Your task to perform on an android device: refresh tabs in the chrome app Image 0: 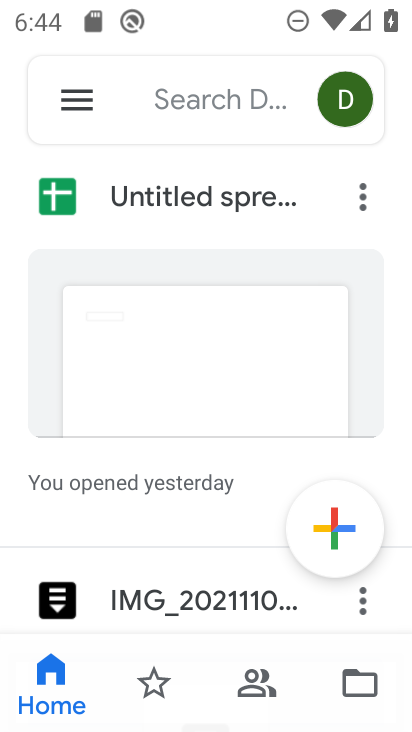
Step 0: press home button
Your task to perform on an android device: refresh tabs in the chrome app Image 1: 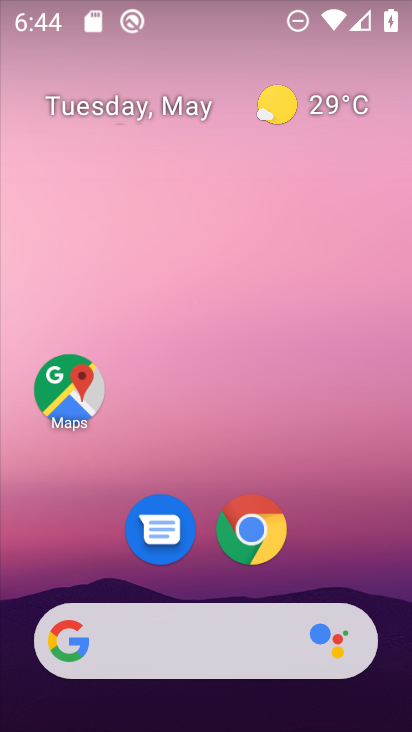
Step 1: drag from (378, 594) to (325, 19)
Your task to perform on an android device: refresh tabs in the chrome app Image 2: 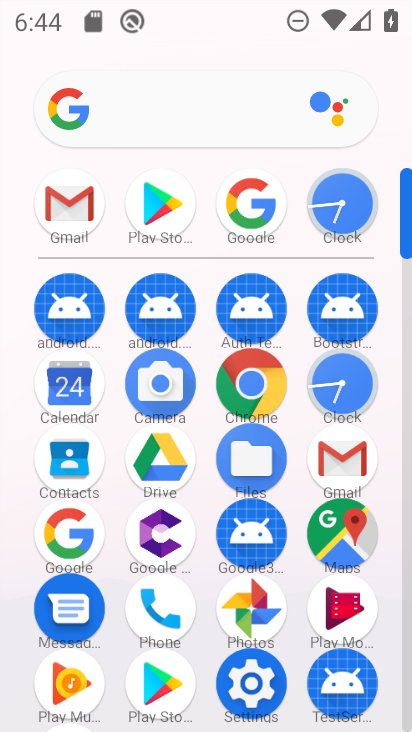
Step 2: click (248, 388)
Your task to perform on an android device: refresh tabs in the chrome app Image 3: 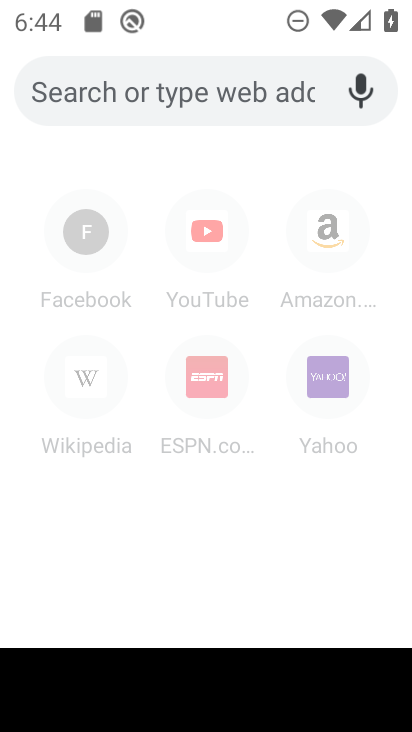
Step 3: press back button
Your task to perform on an android device: refresh tabs in the chrome app Image 4: 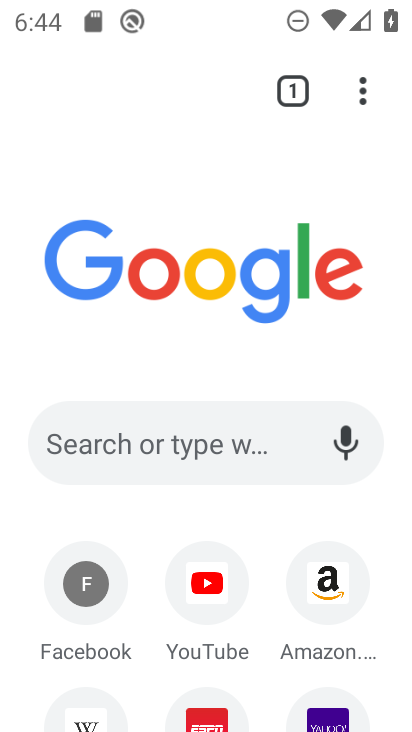
Step 4: click (345, 88)
Your task to perform on an android device: refresh tabs in the chrome app Image 5: 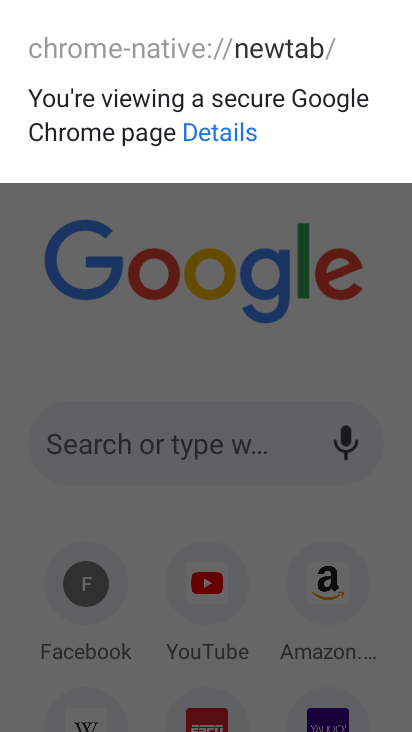
Step 5: press back button
Your task to perform on an android device: refresh tabs in the chrome app Image 6: 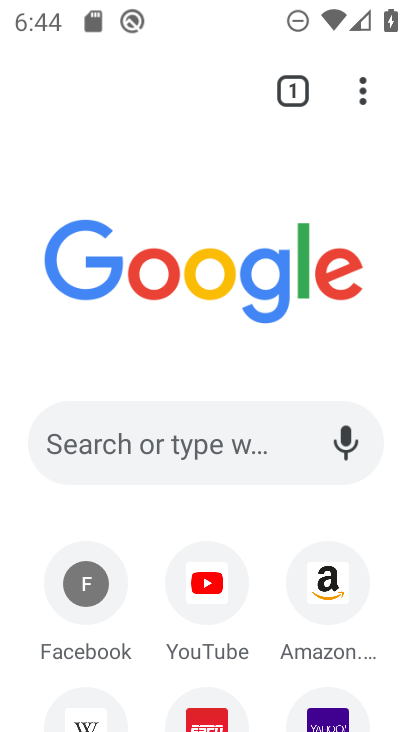
Step 6: click (366, 83)
Your task to perform on an android device: refresh tabs in the chrome app Image 7: 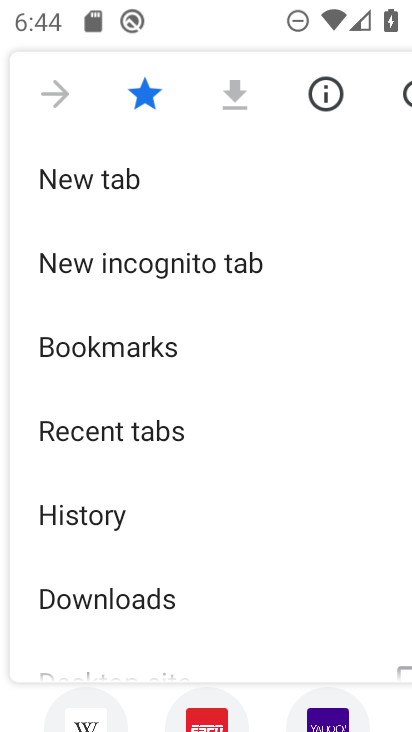
Step 7: click (401, 96)
Your task to perform on an android device: refresh tabs in the chrome app Image 8: 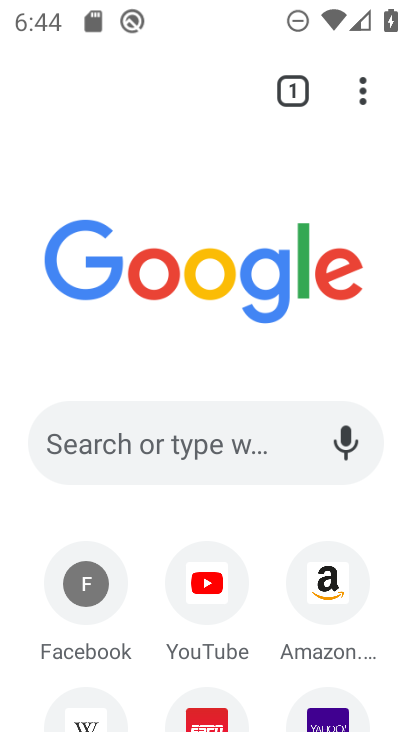
Step 8: task complete